Your task to perform on an android device: set the timer Image 0: 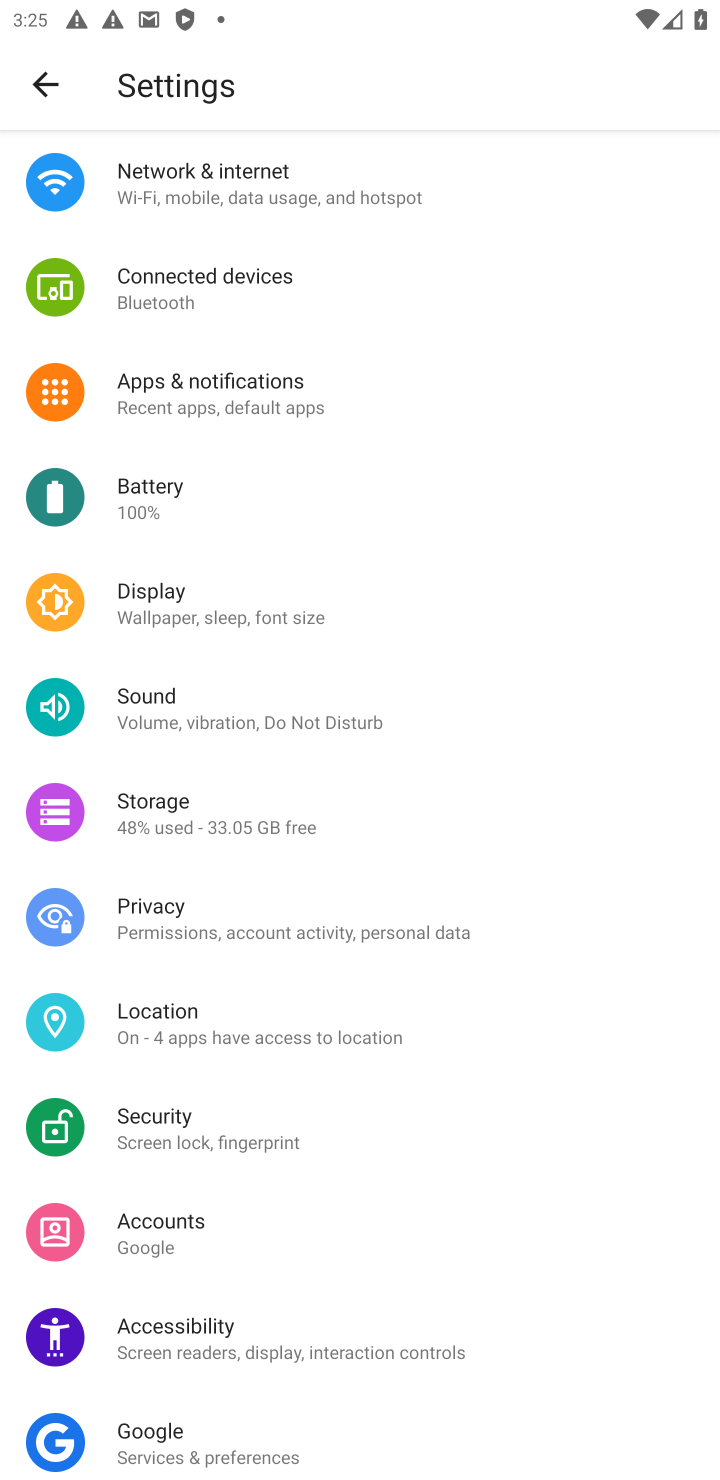
Step 0: press home button
Your task to perform on an android device: set the timer Image 1: 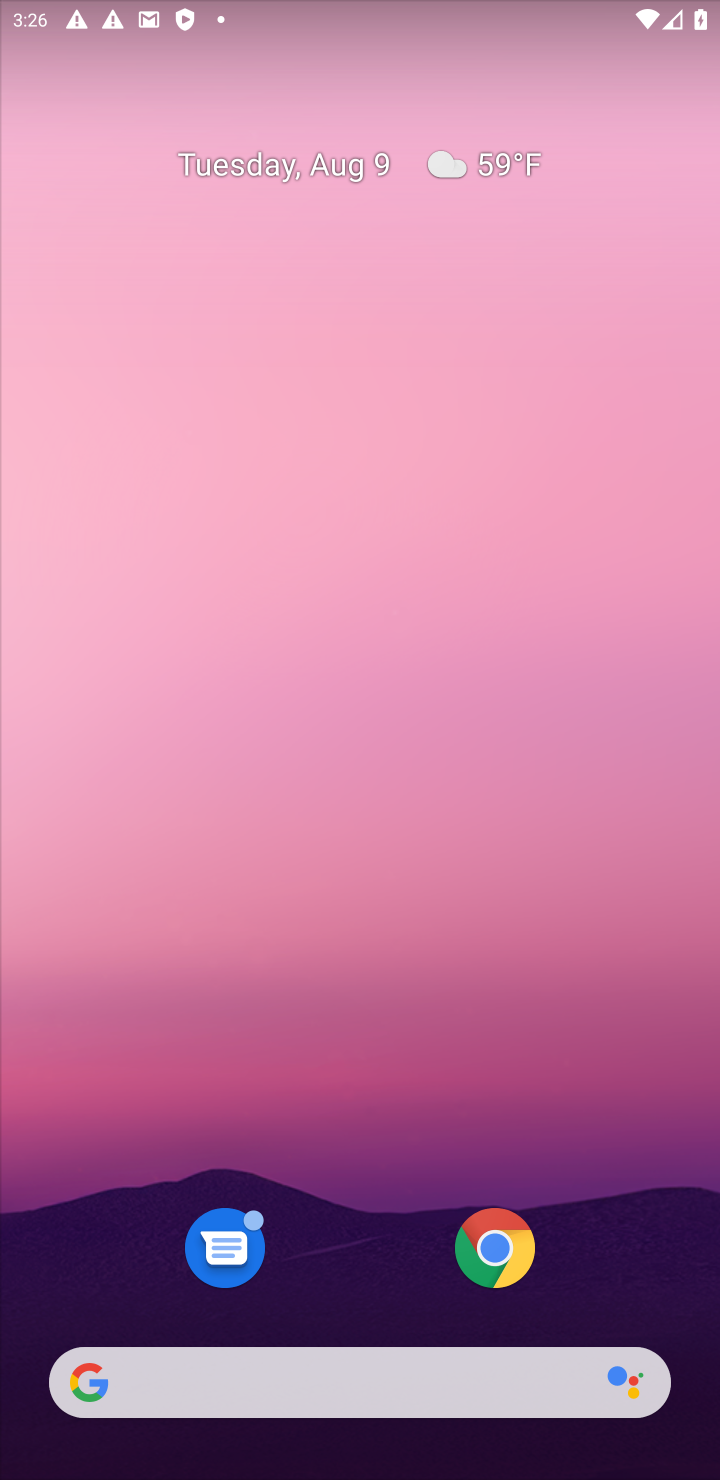
Step 1: drag from (373, 897) to (231, 37)
Your task to perform on an android device: set the timer Image 2: 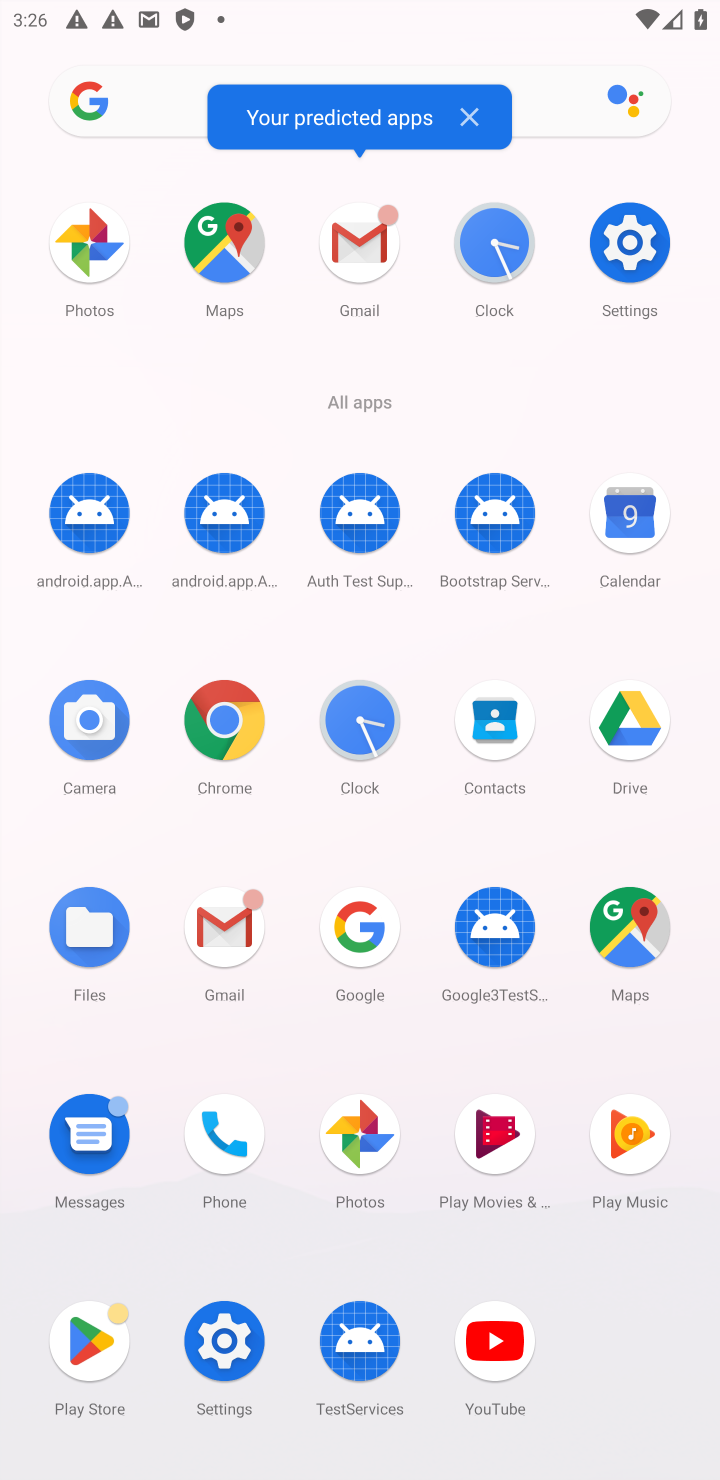
Step 2: click (509, 245)
Your task to perform on an android device: set the timer Image 3: 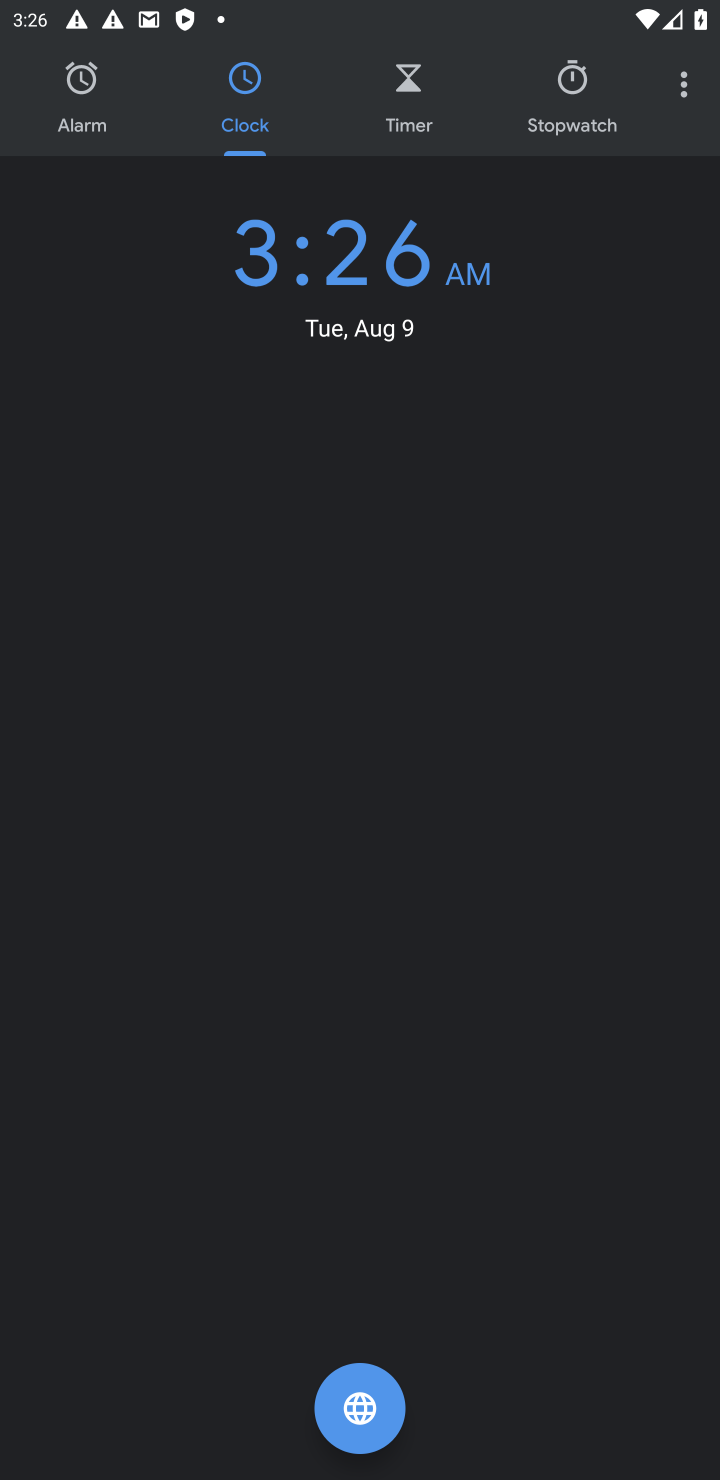
Step 3: click (414, 89)
Your task to perform on an android device: set the timer Image 4: 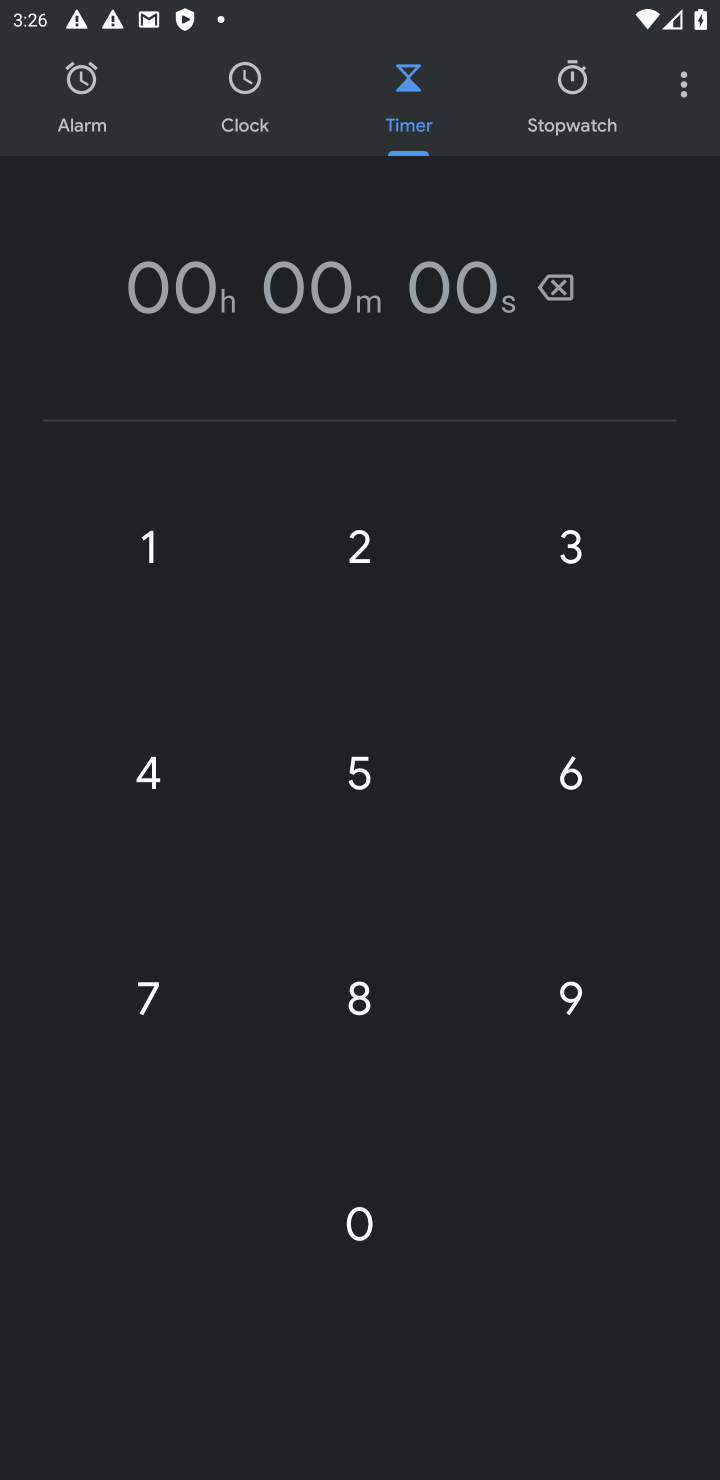
Step 4: click (357, 774)
Your task to perform on an android device: set the timer Image 5: 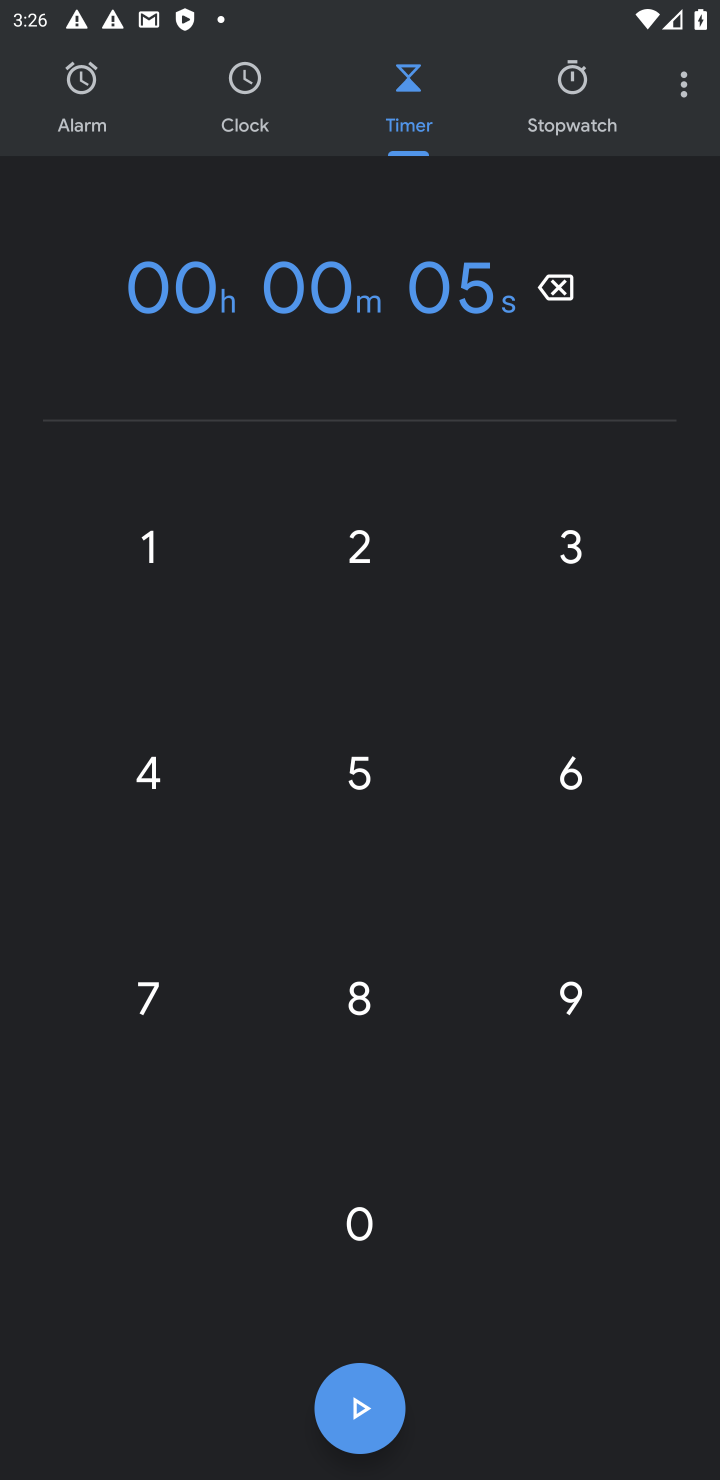
Step 5: task complete